Your task to perform on an android device: Open Chrome and go to the settings page Image 0: 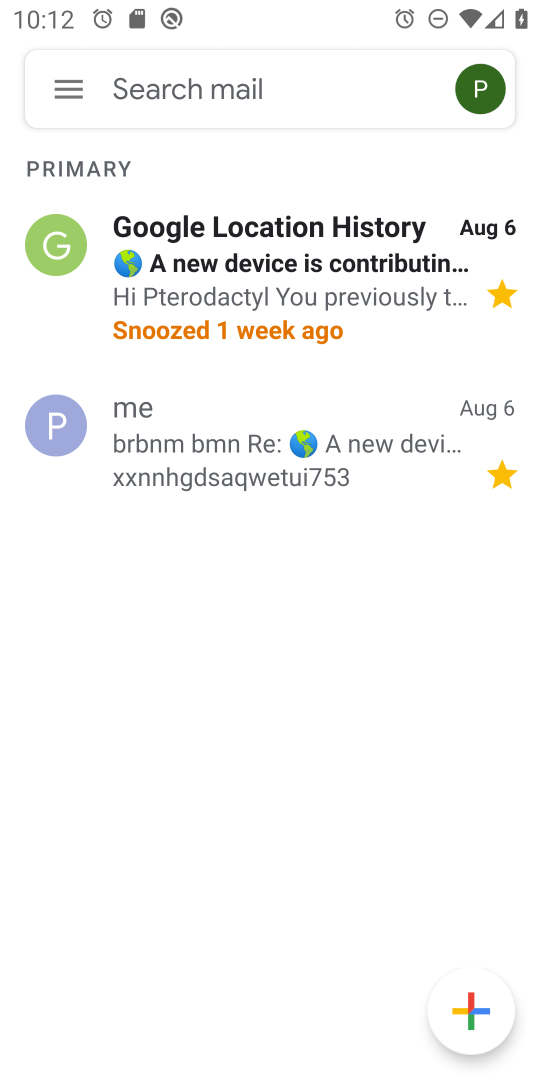
Step 0: press home button
Your task to perform on an android device: Open Chrome and go to the settings page Image 1: 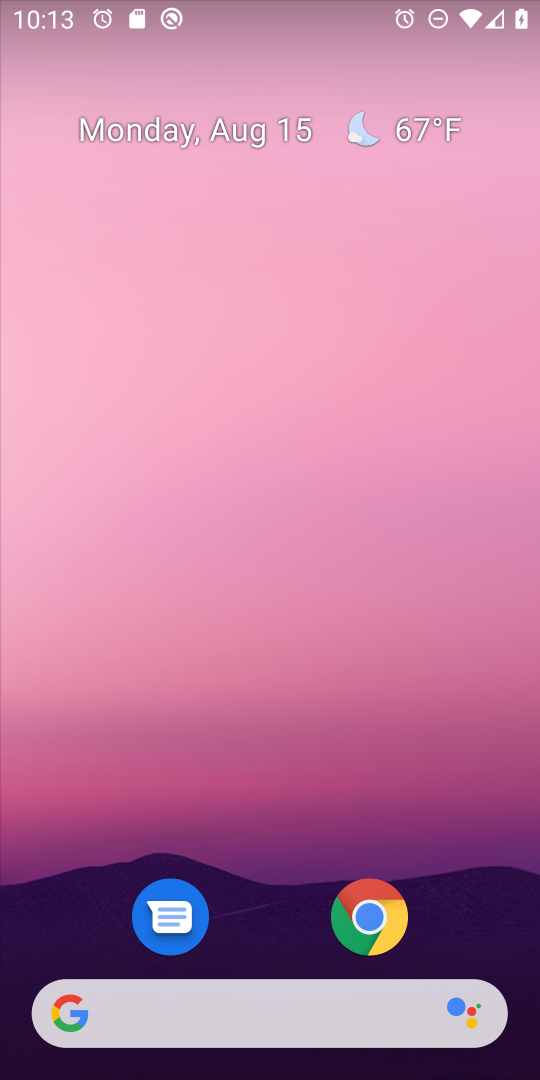
Step 1: click (370, 904)
Your task to perform on an android device: Open Chrome and go to the settings page Image 2: 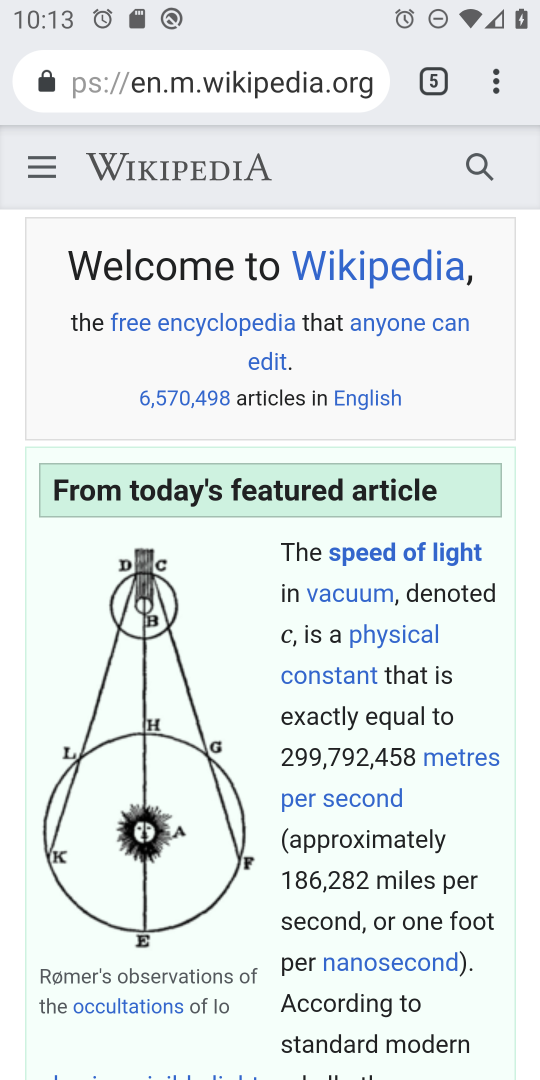
Step 2: click (496, 80)
Your task to perform on an android device: Open Chrome and go to the settings page Image 3: 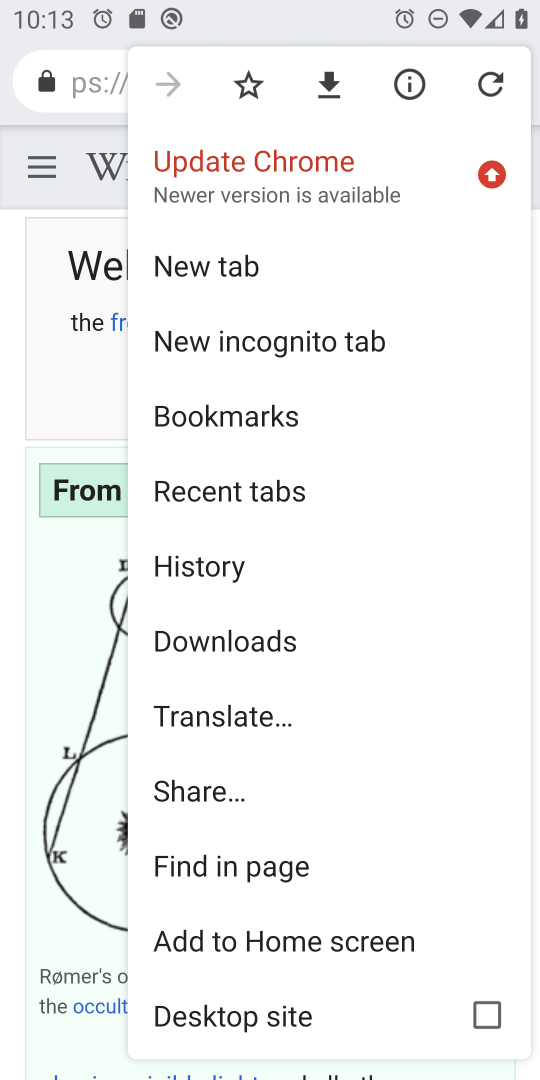
Step 3: drag from (305, 738) to (305, 144)
Your task to perform on an android device: Open Chrome and go to the settings page Image 4: 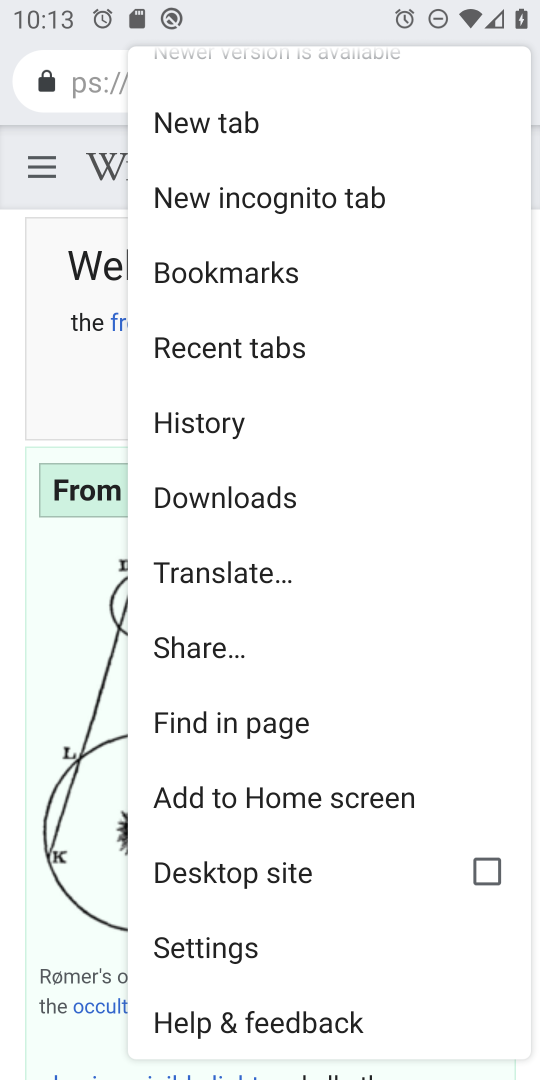
Step 4: click (241, 938)
Your task to perform on an android device: Open Chrome and go to the settings page Image 5: 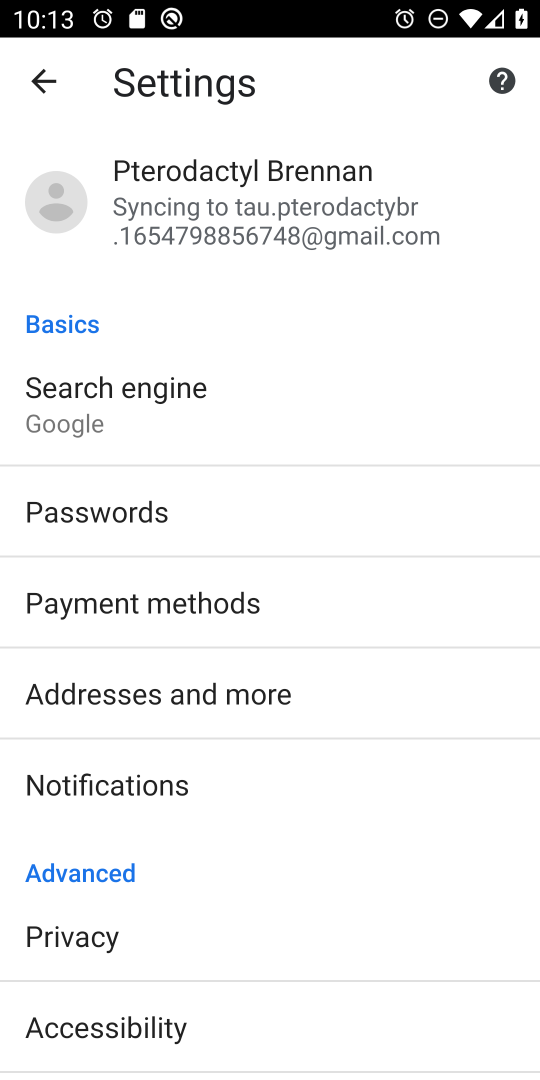
Step 5: task complete